Your task to perform on an android device: Open calendar and show me the first week of next month Image 0: 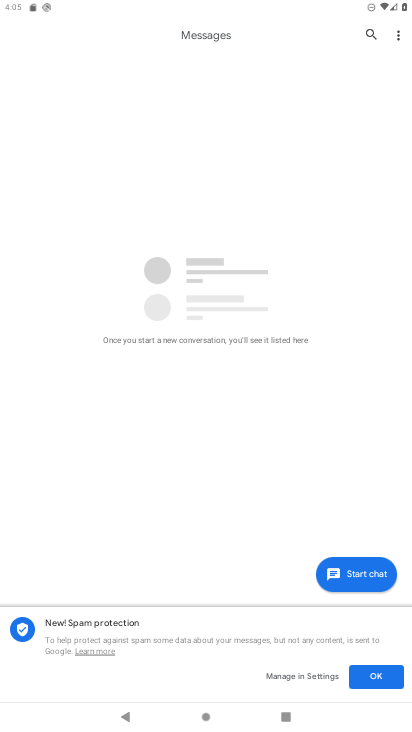
Step 0: press home button
Your task to perform on an android device: Open calendar and show me the first week of next month Image 1: 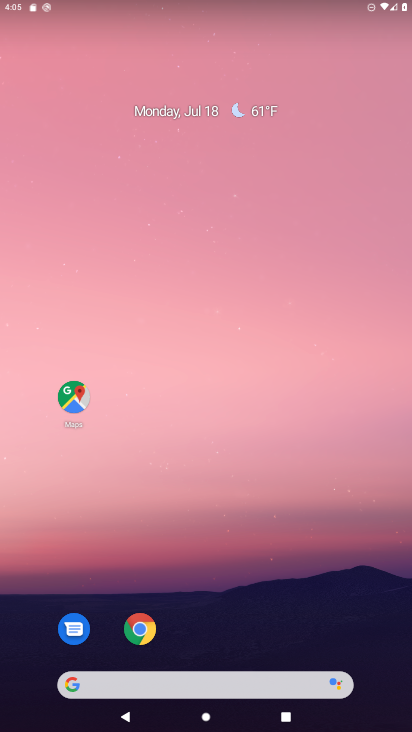
Step 1: drag from (197, 679) to (240, 357)
Your task to perform on an android device: Open calendar and show me the first week of next month Image 2: 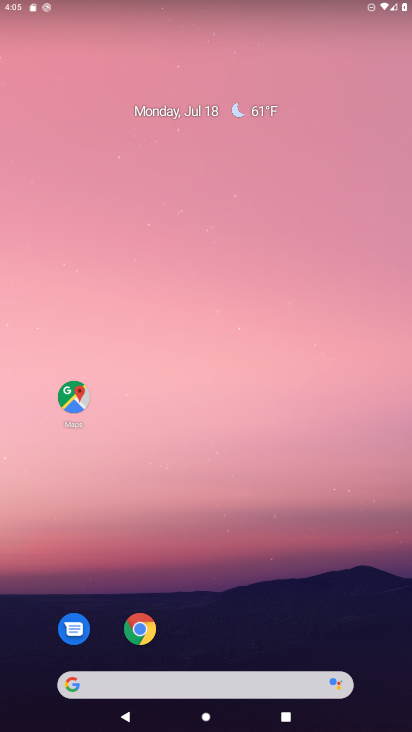
Step 2: drag from (253, 642) to (304, 288)
Your task to perform on an android device: Open calendar and show me the first week of next month Image 3: 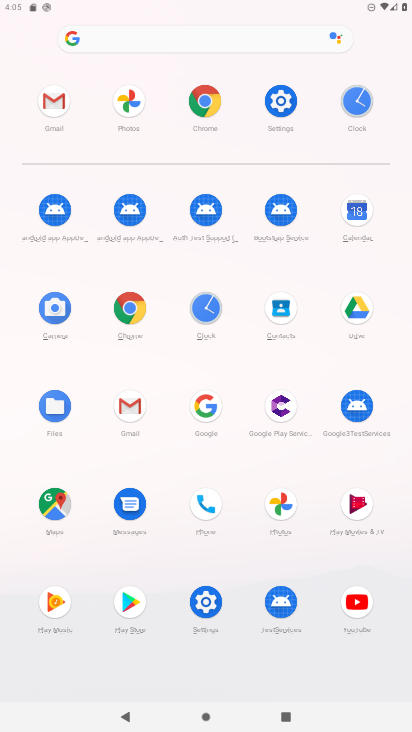
Step 3: click (354, 218)
Your task to perform on an android device: Open calendar and show me the first week of next month Image 4: 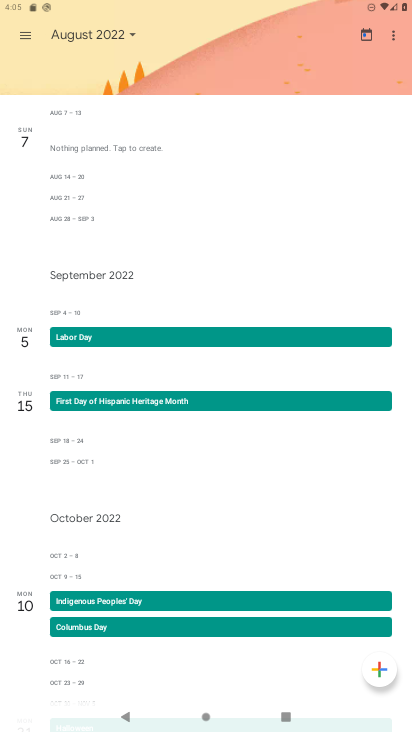
Step 4: click (92, 32)
Your task to perform on an android device: Open calendar and show me the first week of next month Image 5: 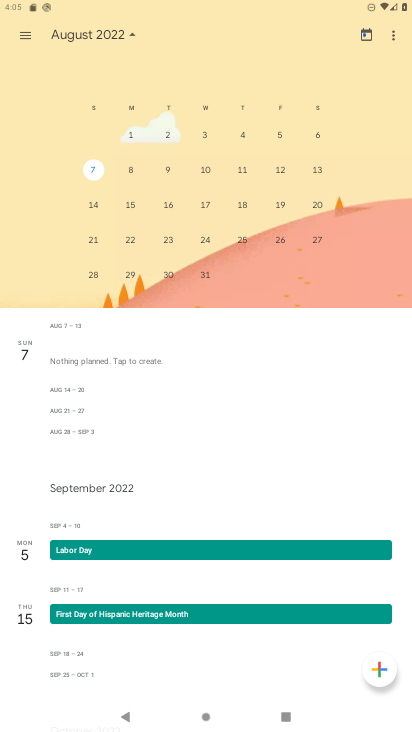
Step 5: click (134, 131)
Your task to perform on an android device: Open calendar and show me the first week of next month Image 6: 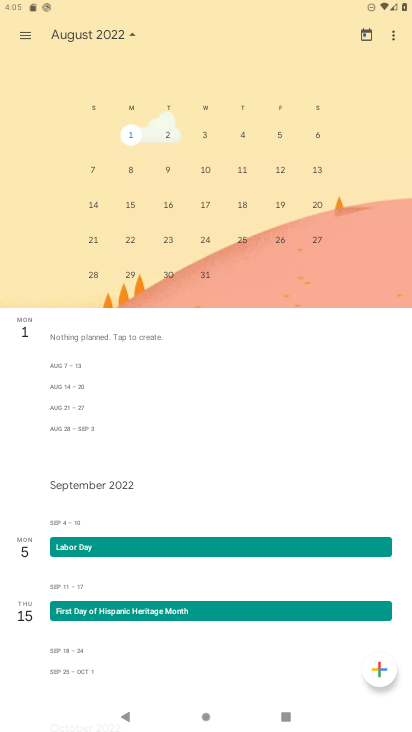
Step 6: task complete